Your task to perform on an android device: toggle pop-ups in chrome Image 0: 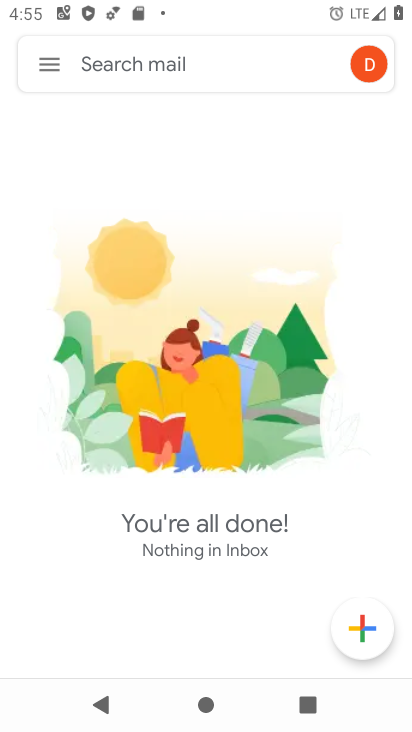
Step 0: press back button
Your task to perform on an android device: toggle pop-ups in chrome Image 1: 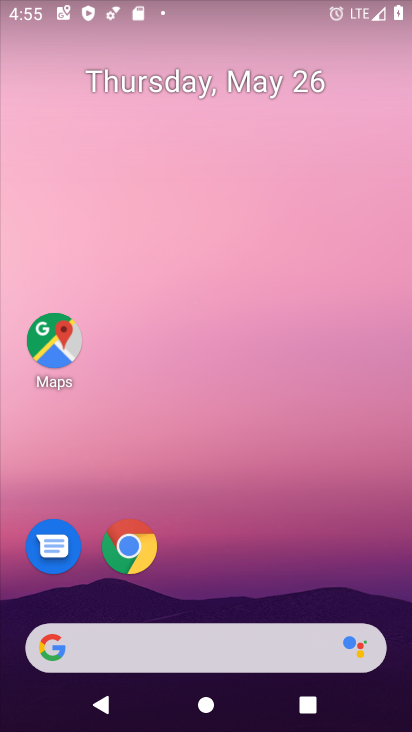
Step 1: click (152, 543)
Your task to perform on an android device: toggle pop-ups in chrome Image 2: 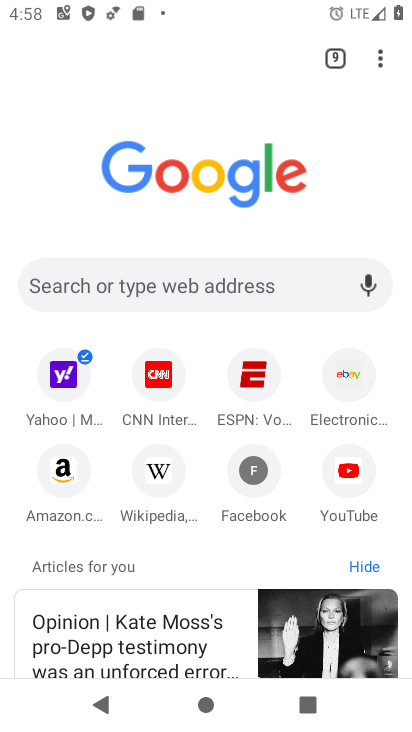
Step 2: click (374, 67)
Your task to perform on an android device: toggle pop-ups in chrome Image 3: 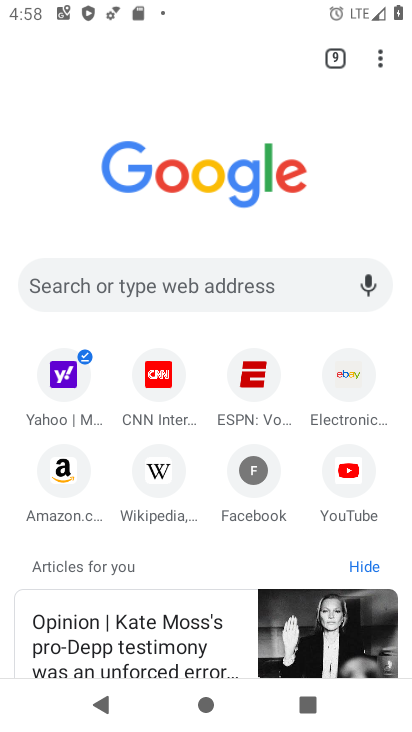
Step 3: drag from (379, 65) to (166, 491)
Your task to perform on an android device: toggle pop-ups in chrome Image 4: 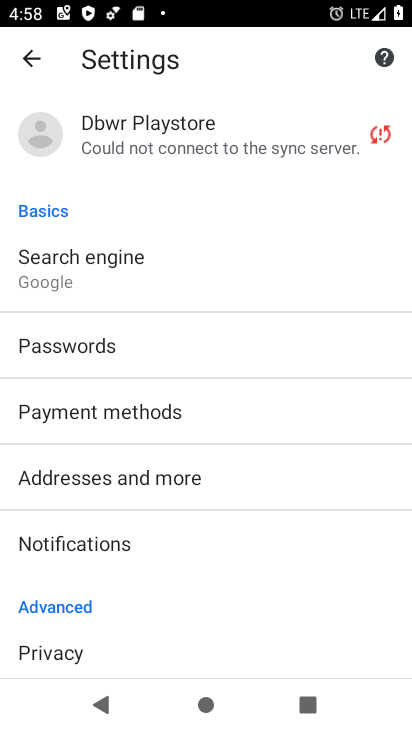
Step 4: drag from (149, 638) to (240, 87)
Your task to perform on an android device: toggle pop-ups in chrome Image 5: 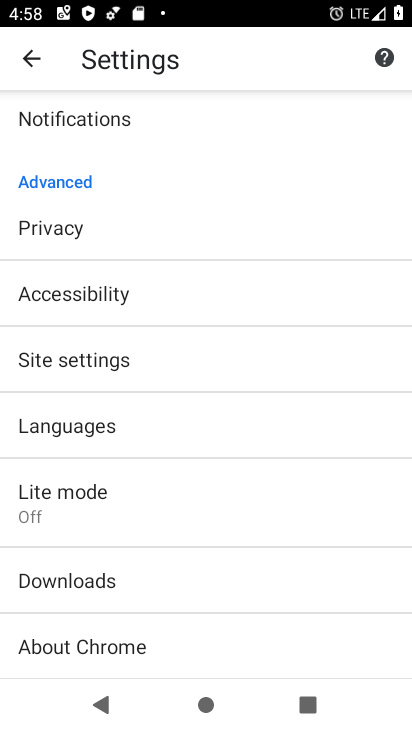
Step 5: click (76, 371)
Your task to perform on an android device: toggle pop-ups in chrome Image 6: 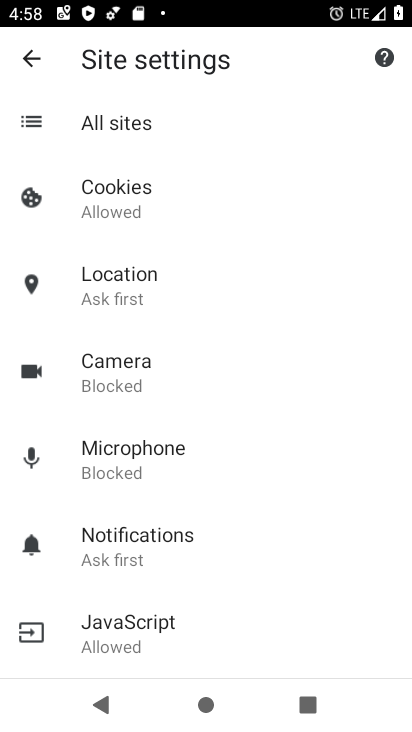
Step 6: drag from (145, 591) to (231, 145)
Your task to perform on an android device: toggle pop-ups in chrome Image 7: 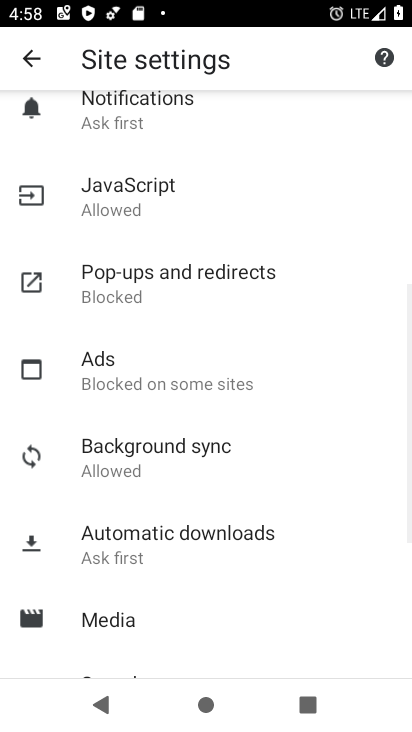
Step 7: click (137, 276)
Your task to perform on an android device: toggle pop-ups in chrome Image 8: 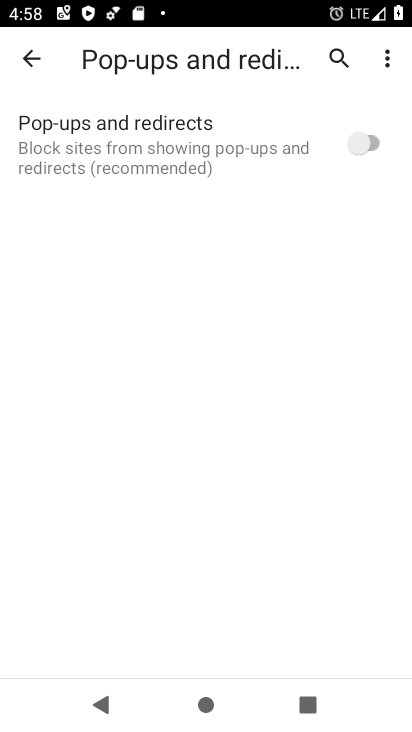
Step 8: click (364, 137)
Your task to perform on an android device: toggle pop-ups in chrome Image 9: 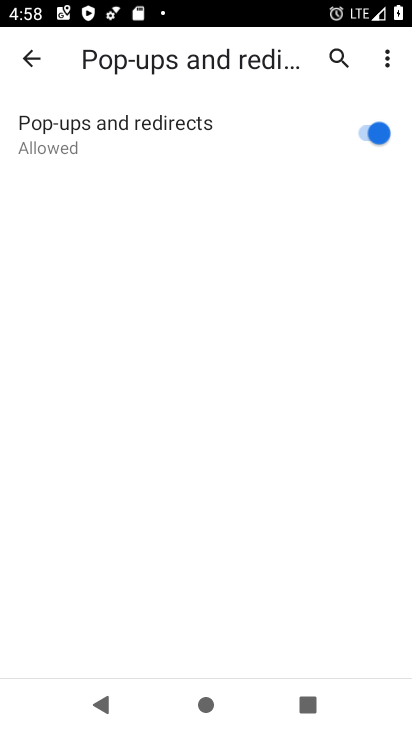
Step 9: task complete